Your task to perform on an android device: Go to notification settings Image 0: 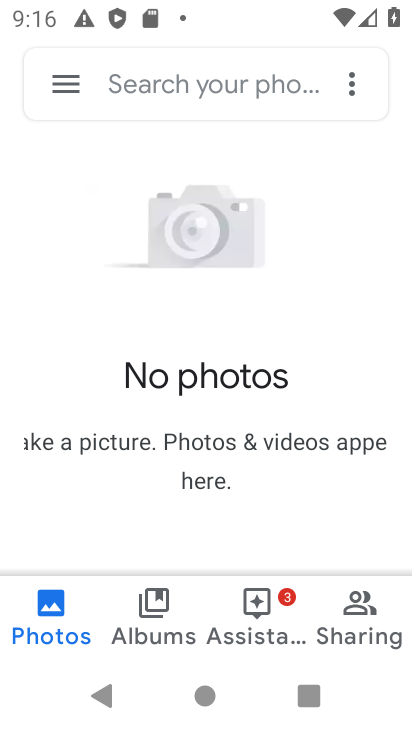
Step 0: press home button
Your task to perform on an android device: Go to notification settings Image 1: 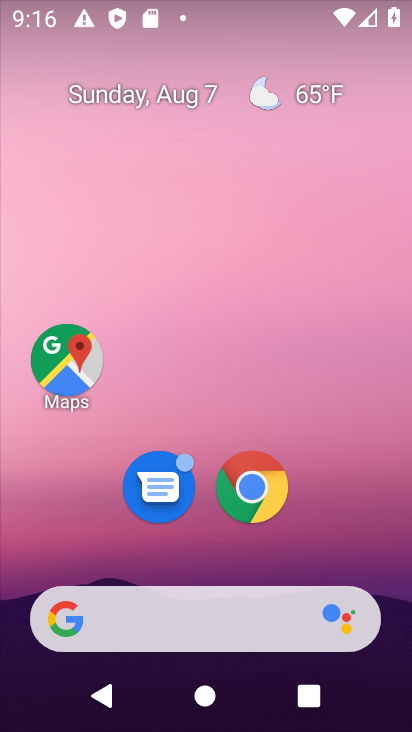
Step 1: drag from (381, 671) to (265, 2)
Your task to perform on an android device: Go to notification settings Image 2: 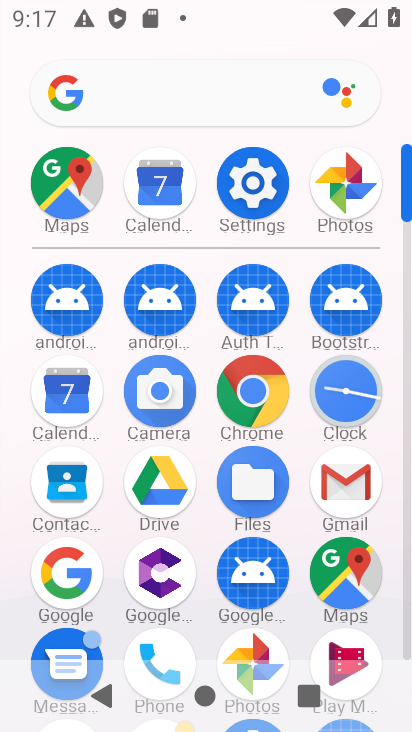
Step 2: click (245, 177)
Your task to perform on an android device: Go to notification settings Image 3: 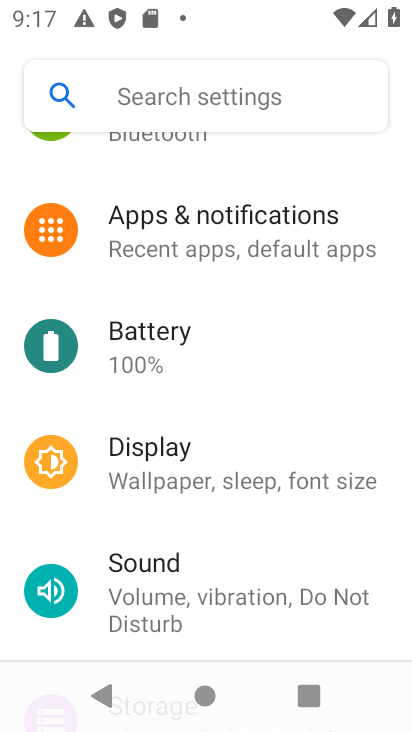
Step 3: click (256, 218)
Your task to perform on an android device: Go to notification settings Image 4: 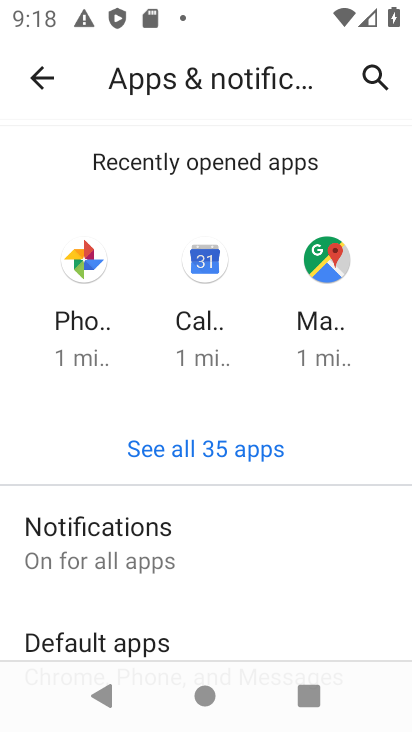
Step 4: click (84, 527)
Your task to perform on an android device: Go to notification settings Image 5: 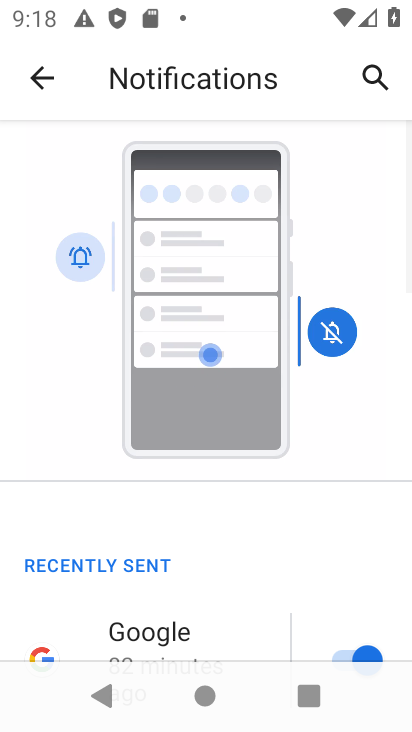
Step 5: task complete